Your task to perform on an android device: Search for a custom made wallet on Etsy Image 0: 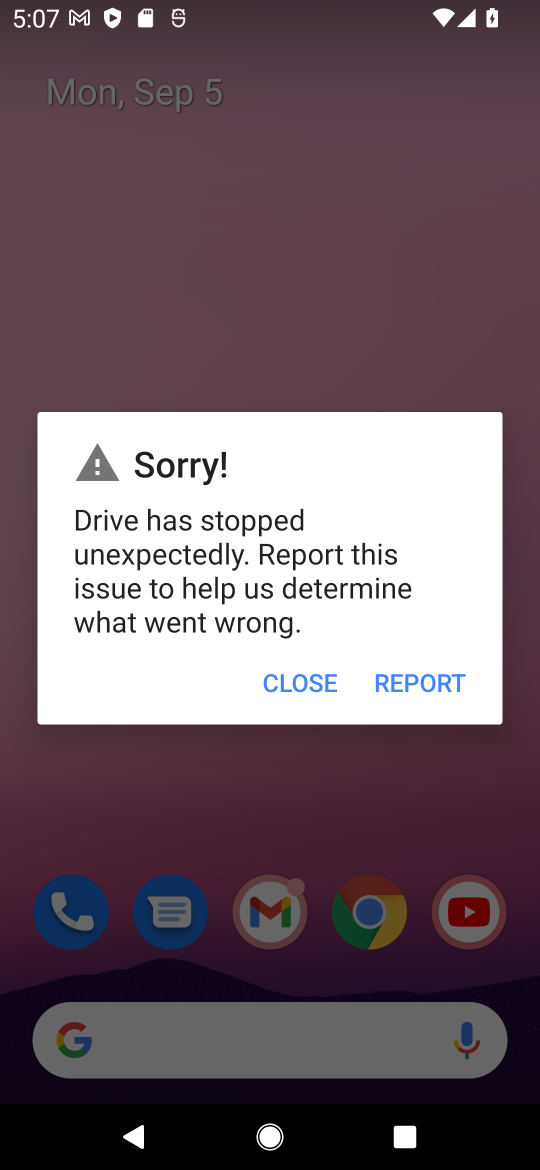
Step 0: press home button
Your task to perform on an android device: Search for a custom made wallet on Etsy Image 1: 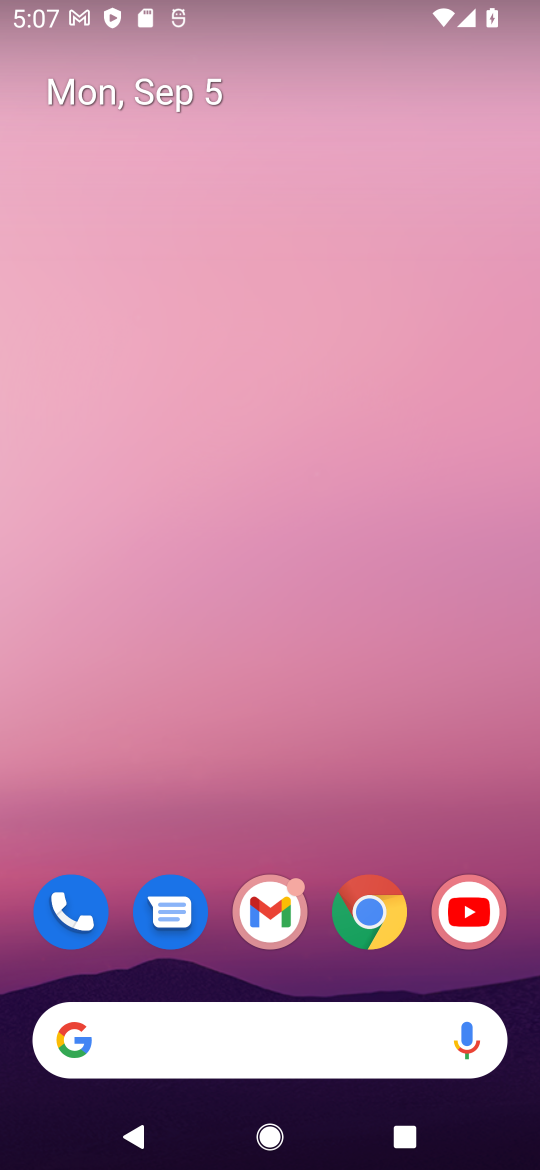
Step 1: click (382, 927)
Your task to perform on an android device: Search for a custom made wallet on Etsy Image 2: 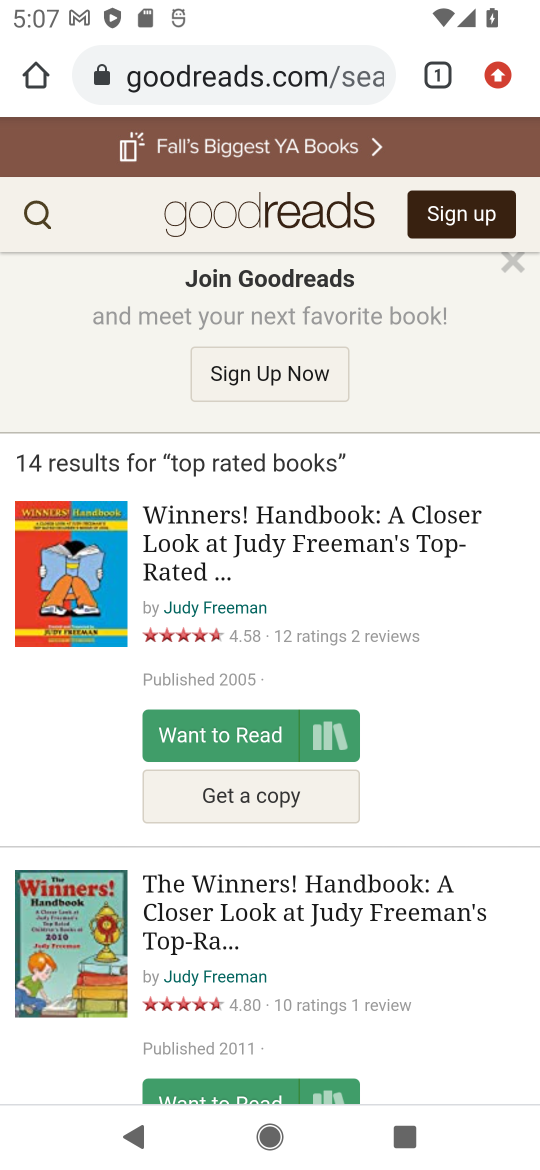
Step 2: click (235, 66)
Your task to perform on an android device: Search for a custom made wallet on Etsy Image 3: 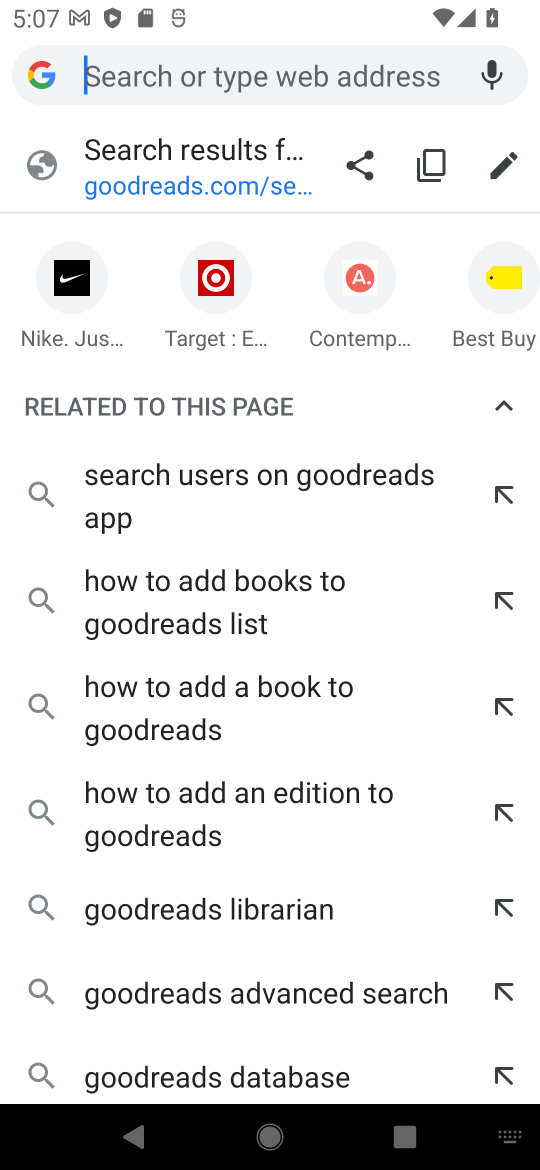
Step 3: type "etsy"
Your task to perform on an android device: Search for a custom made wallet on Etsy Image 4: 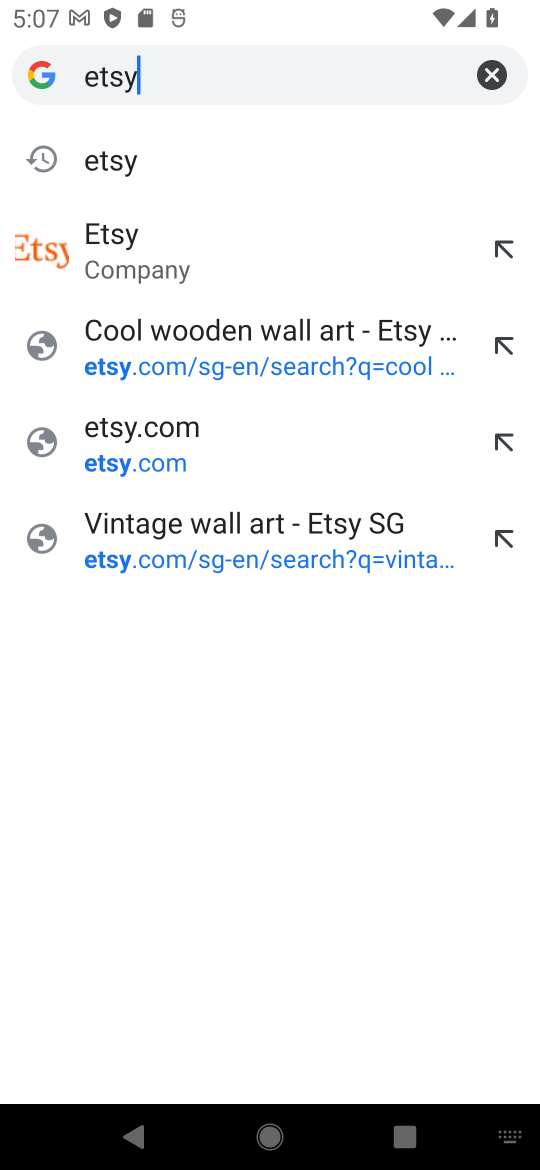
Step 4: press enter
Your task to perform on an android device: Search for a custom made wallet on Etsy Image 5: 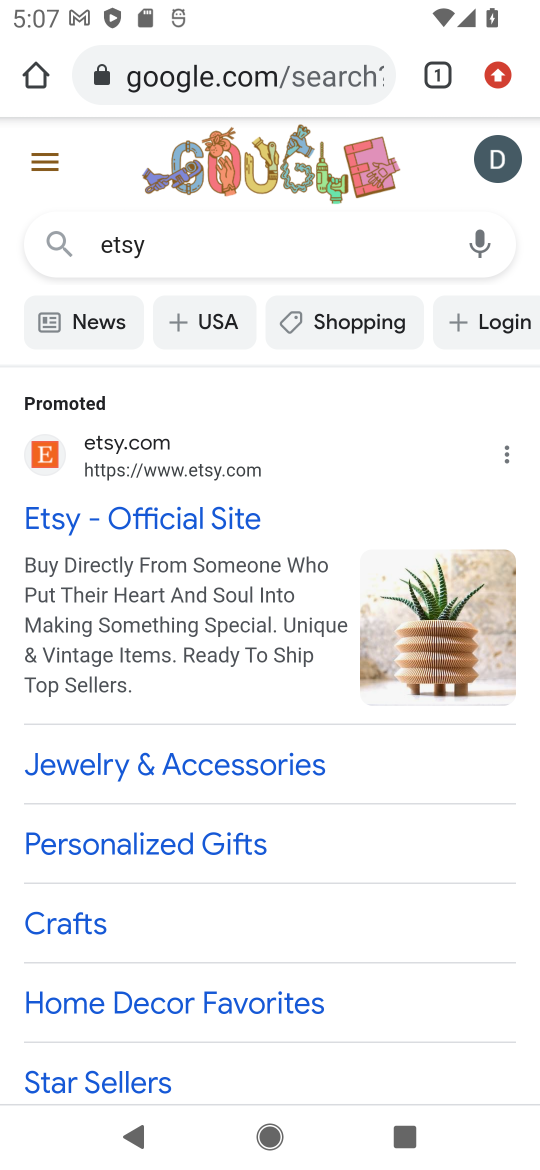
Step 5: click (191, 523)
Your task to perform on an android device: Search for a custom made wallet on Etsy Image 6: 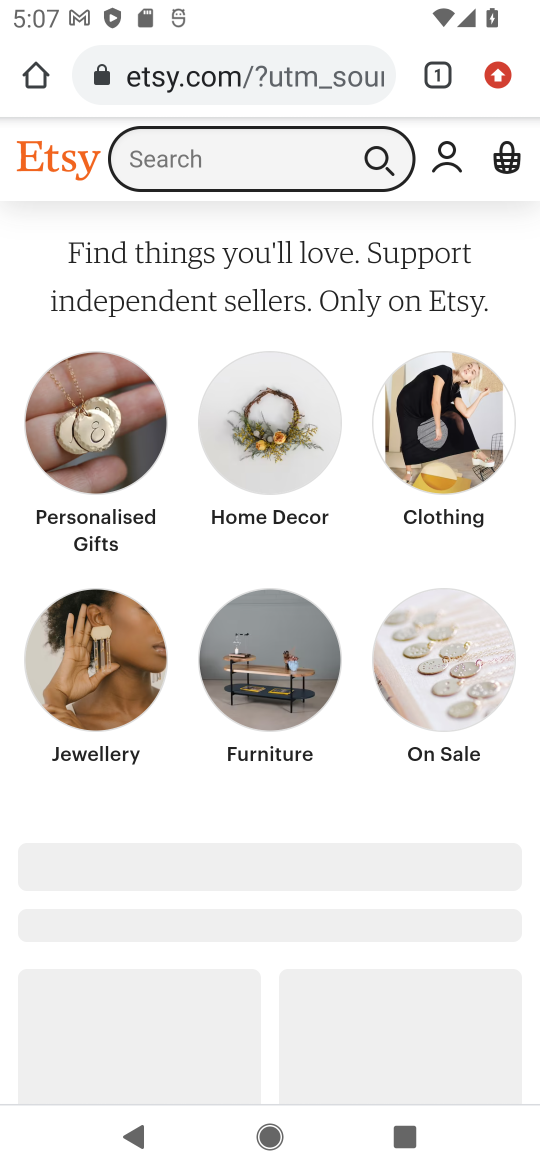
Step 6: click (235, 151)
Your task to perform on an android device: Search for a custom made wallet on Etsy Image 7: 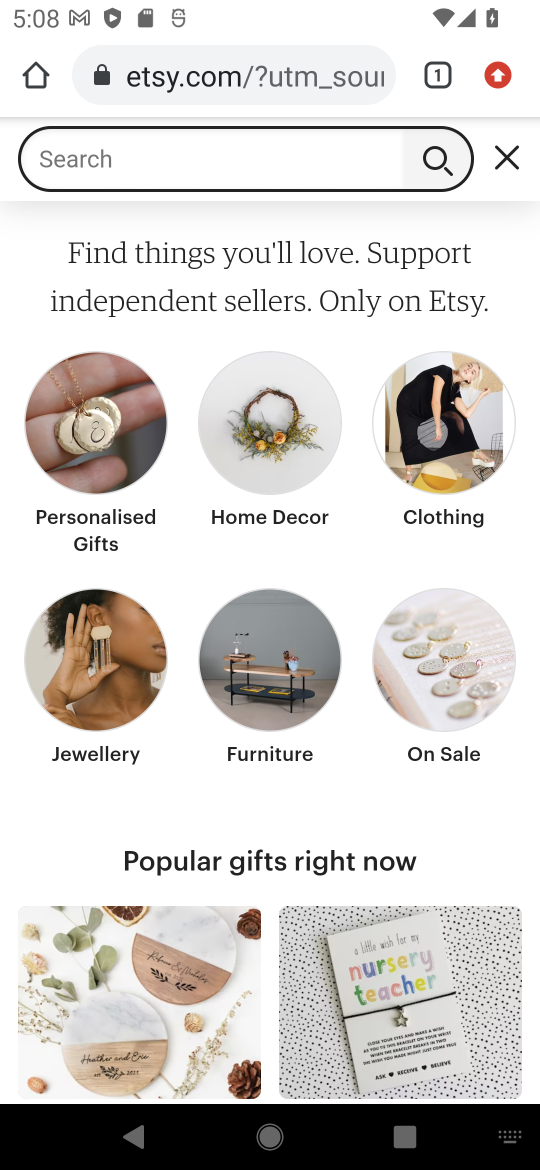
Step 7: type "custom made wallet"
Your task to perform on an android device: Search for a custom made wallet on Etsy Image 8: 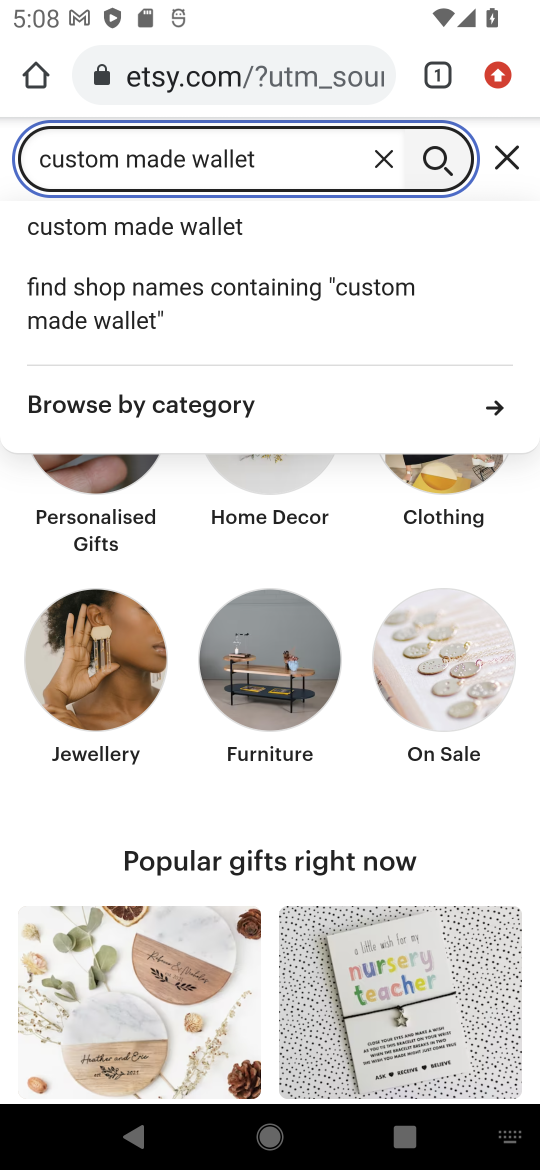
Step 8: press enter
Your task to perform on an android device: Search for a custom made wallet on Etsy Image 9: 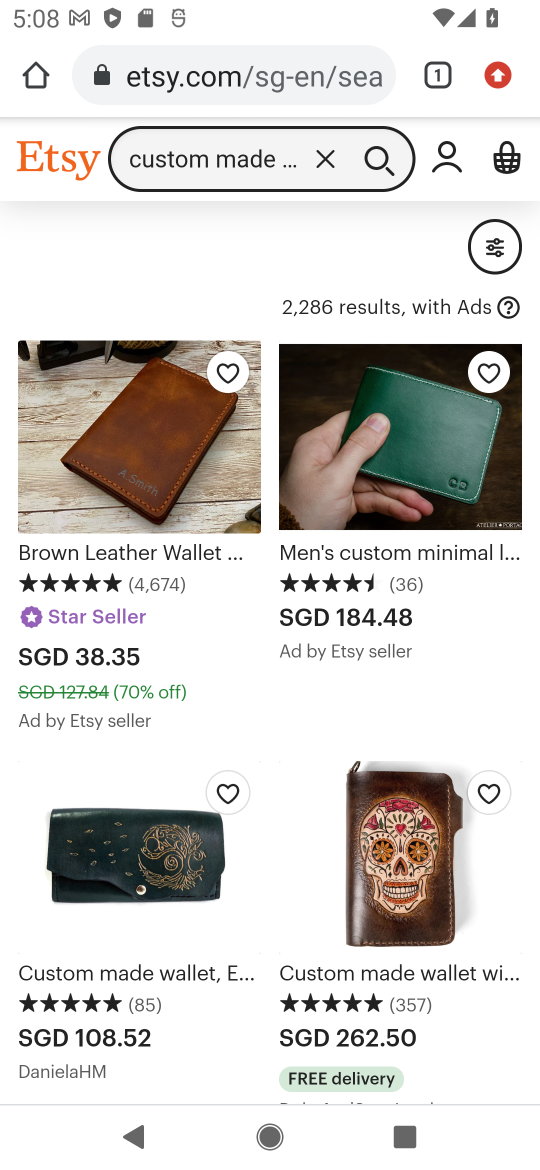
Step 9: task complete